Your task to perform on an android device: delete browsing data in the chrome app Image 0: 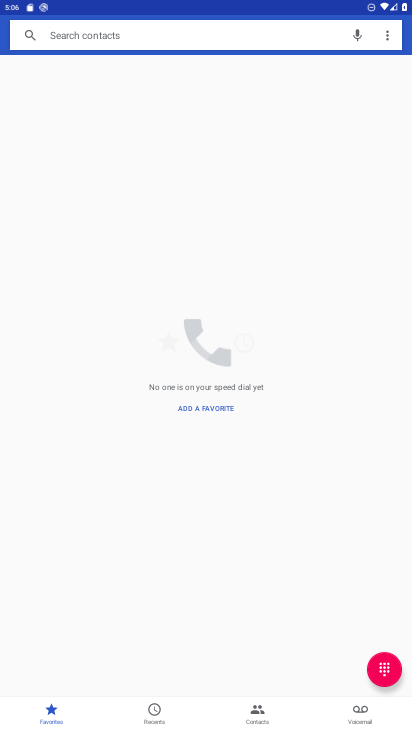
Step 0: press home button
Your task to perform on an android device: delete browsing data in the chrome app Image 1: 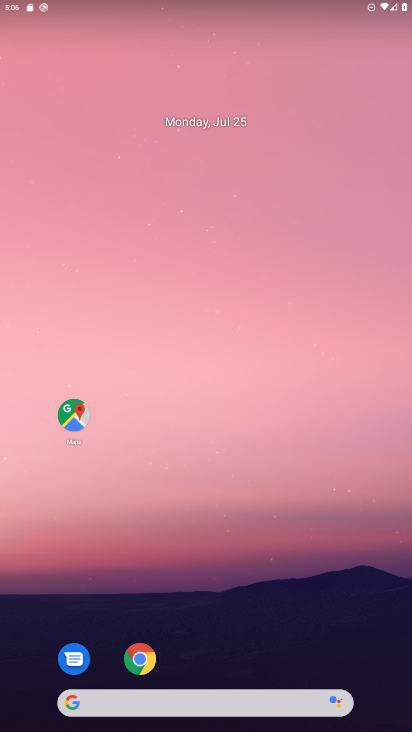
Step 1: drag from (245, 642) to (239, 94)
Your task to perform on an android device: delete browsing data in the chrome app Image 2: 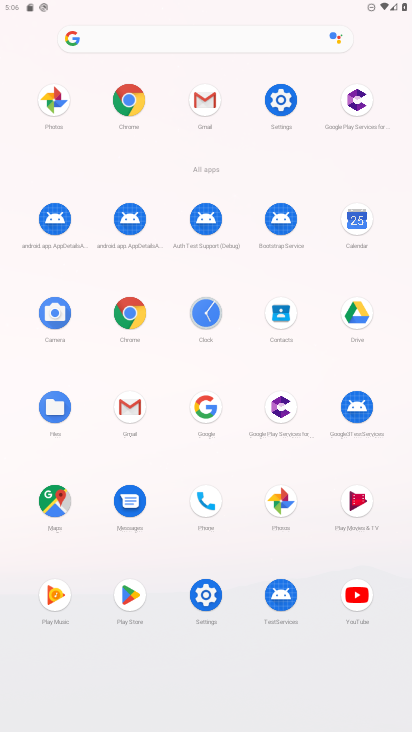
Step 2: click (135, 106)
Your task to perform on an android device: delete browsing data in the chrome app Image 3: 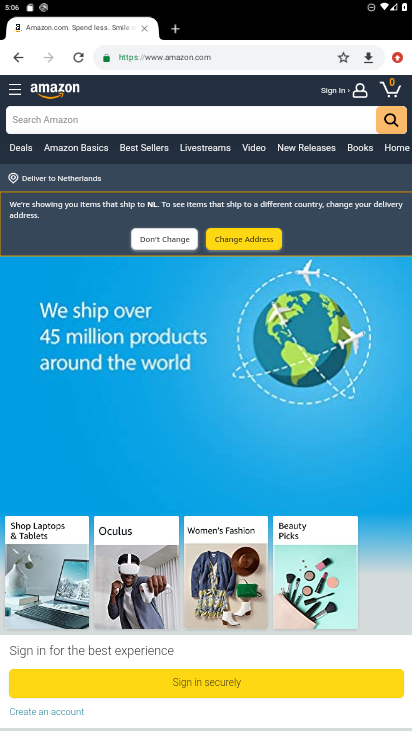
Step 3: click (402, 60)
Your task to perform on an android device: delete browsing data in the chrome app Image 4: 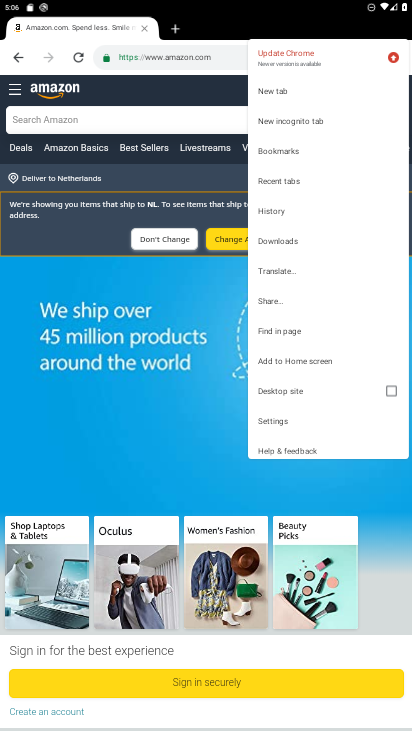
Step 4: click (321, 210)
Your task to perform on an android device: delete browsing data in the chrome app Image 5: 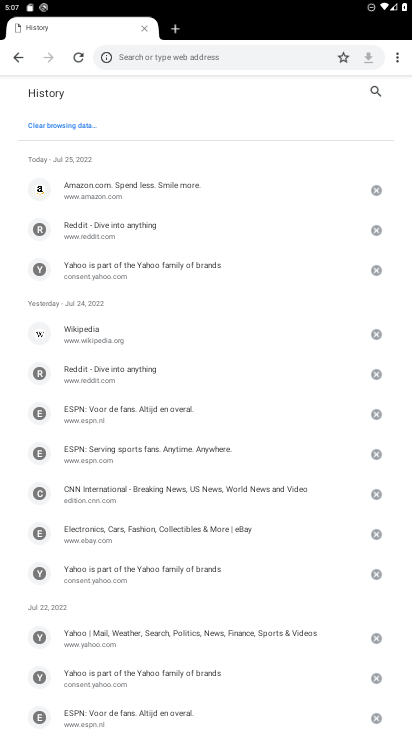
Step 5: click (79, 126)
Your task to perform on an android device: delete browsing data in the chrome app Image 6: 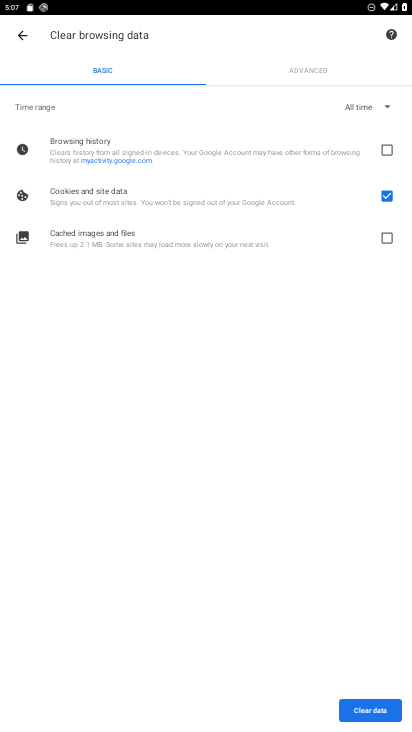
Step 6: click (388, 144)
Your task to perform on an android device: delete browsing data in the chrome app Image 7: 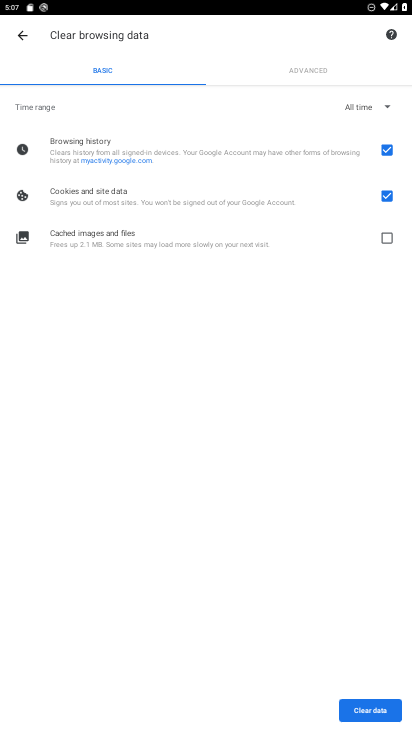
Step 7: click (385, 237)
Your task to perform on an android device: delete browsing data in the chrome app Image 8: 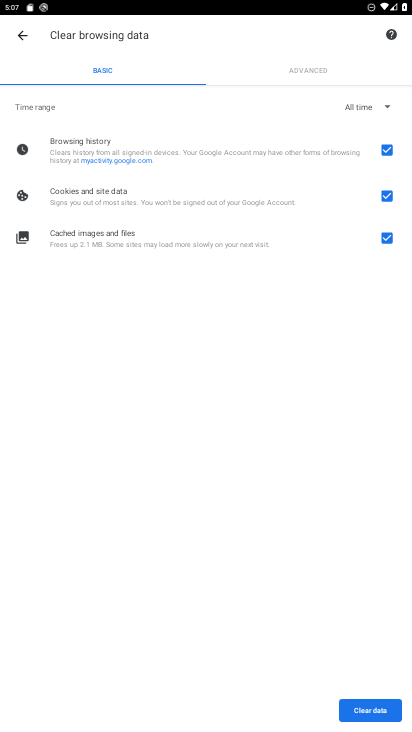
Step 8: click (367, 719)
Your task to perform on an android device: delete browsing data in the chrome app Image 9: 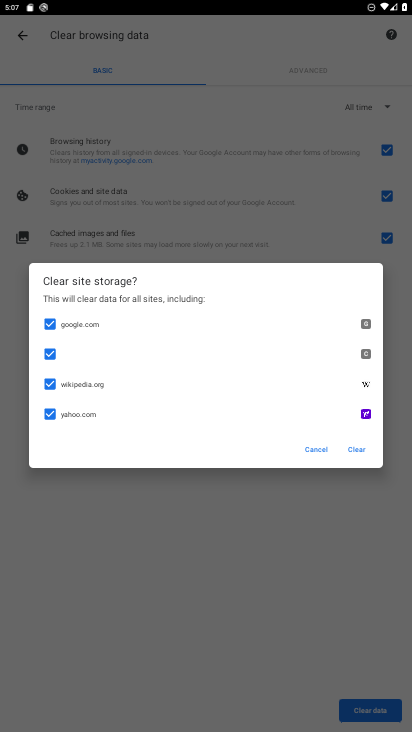
Step 9: click (363, 456)
Your task to perform on an android device: delete browsing data in the chrome app Image 10: 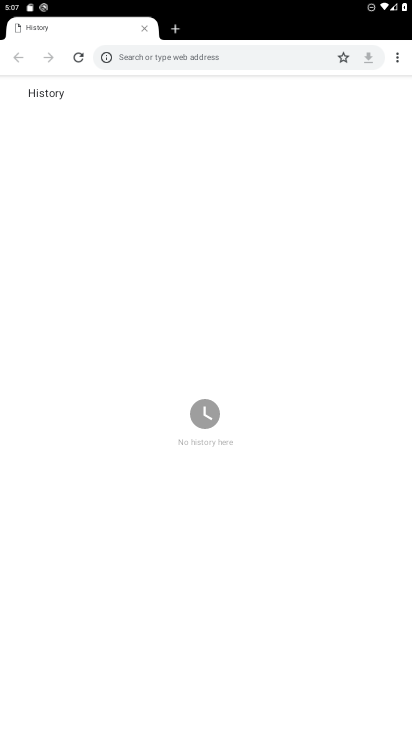
Step 10: task complete